Your task to perform on an android device: check storage Image 0: 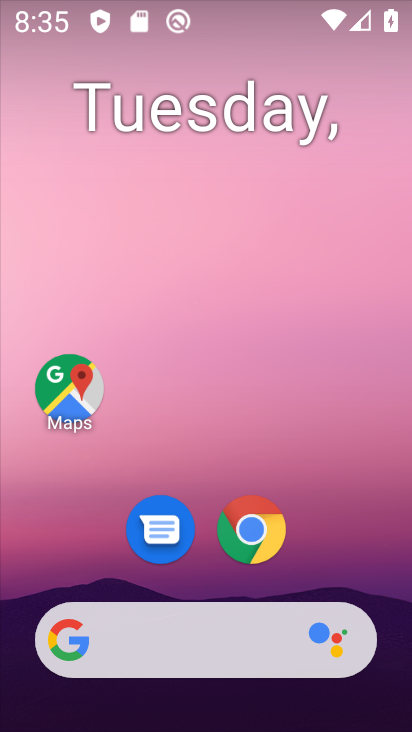
Step 0: drag from (383, 560) to (345, 202)
Your task to perform on an android device: check storage Image 1: 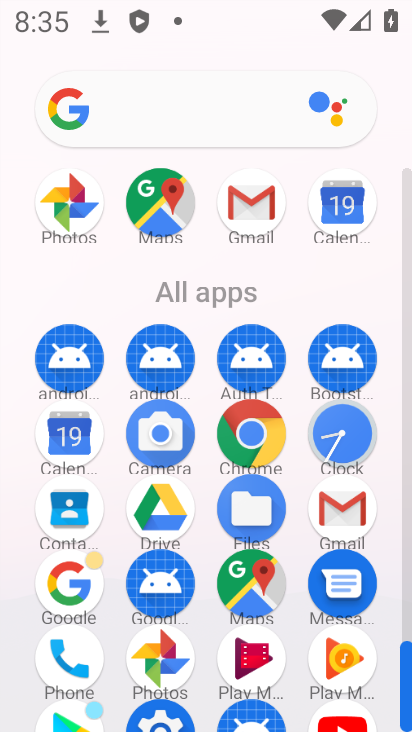
Step 1: drag from (391, 550) to (383, 352)
Your task to perform on an android device: check storage Image 2: 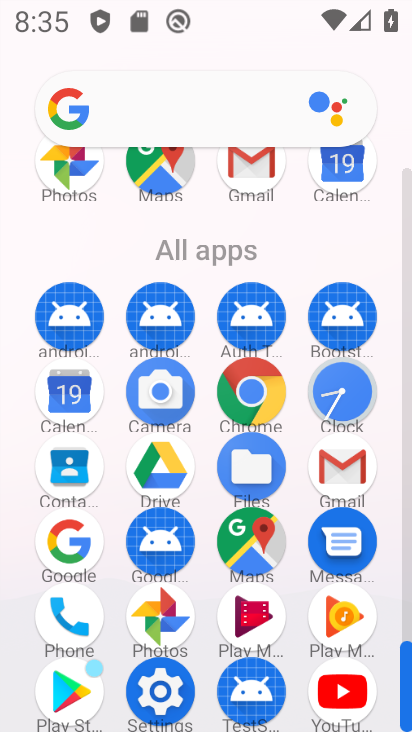
Step 2: click (153, 692)
Your task to perform on an android device: check storage Image 3: 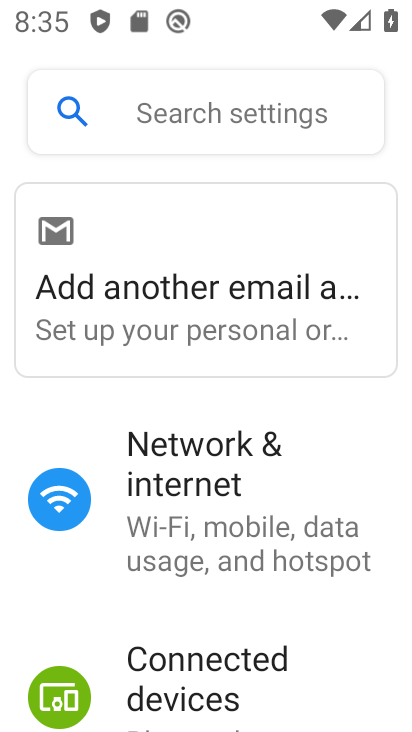
Step 3: drag from (291, 596) to (267, 185)
Your task to perform on an android device: check storage Image 4: 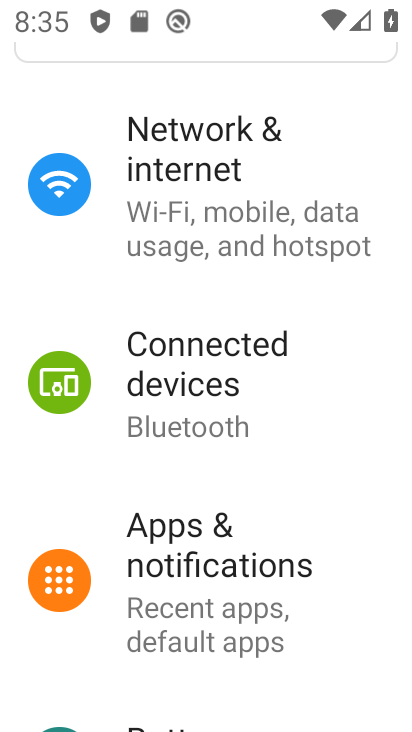
Step 4: drag from (298, 526) to (293, 184)
Your task to perform on an android device: check storage Image 5: 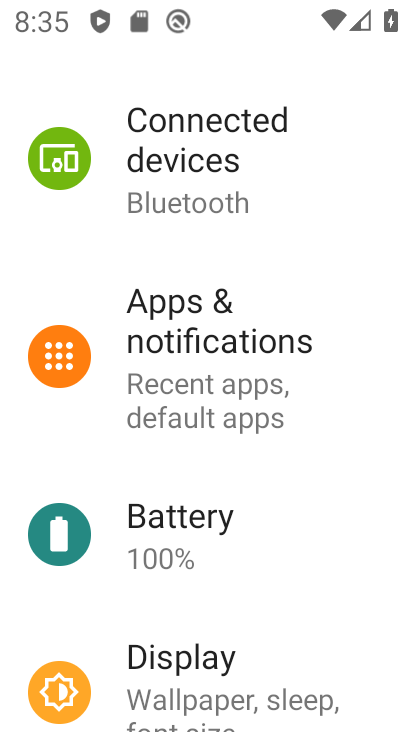
Step 5: drag from (301, 490) to (318, 164)
Your task to perform on an android device: check storage Image 6: 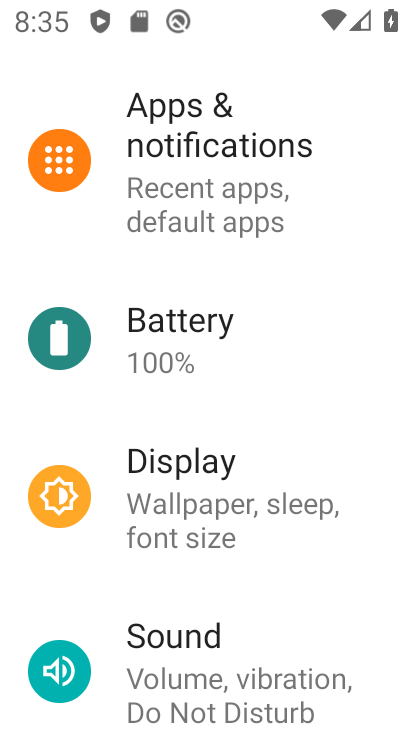
Step 6: drag from (320, 463) to (361, 159)
Your task to perform on an android device: check storage Image 7: 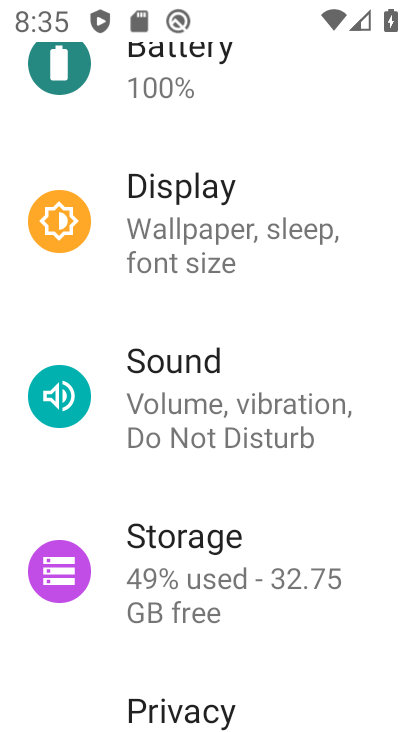
Step 7: drag from (344, 489) to (355, 162)
Your task to perform on an android device: check storage Image 8: 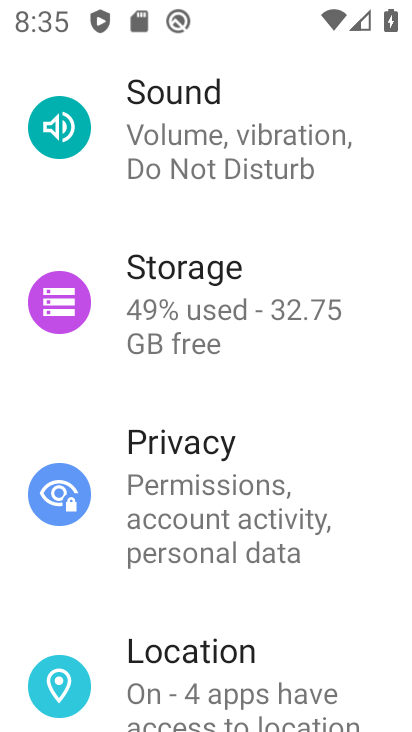
Step 8: click (189, 309)
Your task to perform on an android device: check storage Image 9: 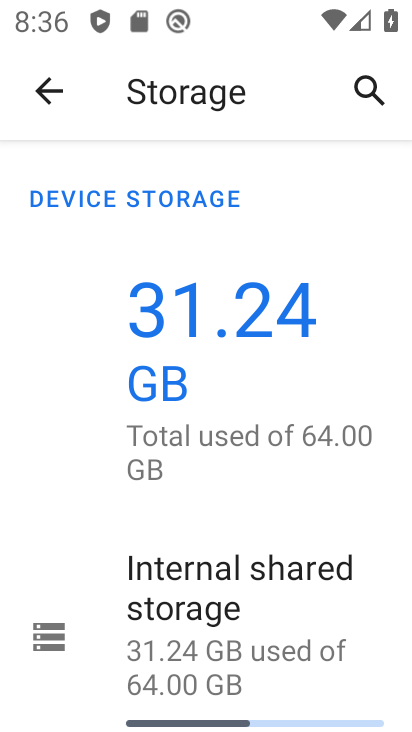
Step 9: task complete